Your task to perform on an android device: manage bookmarks in the chrome app Image 0: 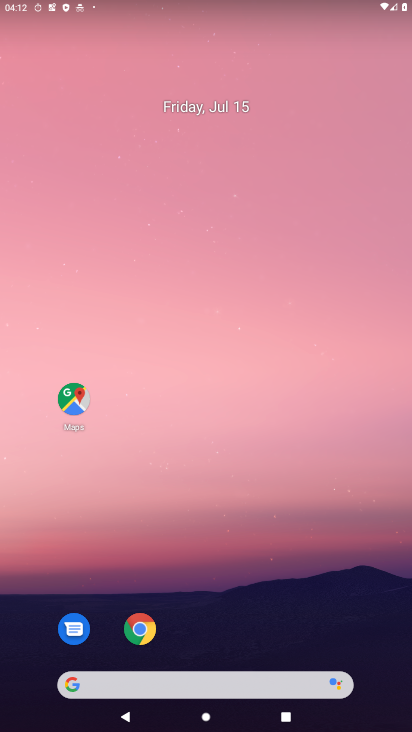
Step 0: drag from (216, 618) to (233, 263)
Your task to perform on an android device: manage bookmarks in the chrome app Image 1: 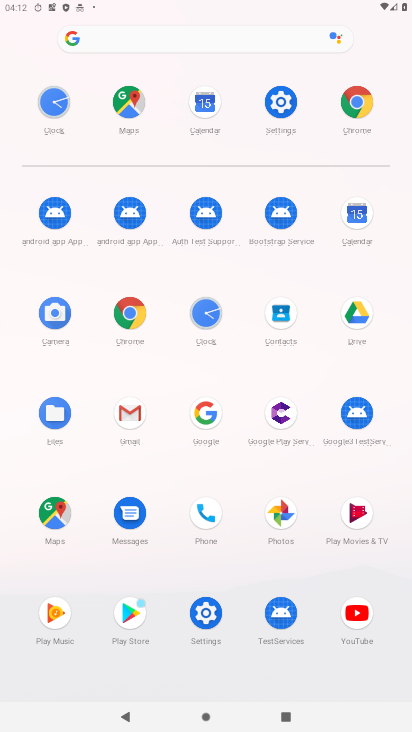
Step 1: click (367, 99)
Your task to perform on an android device: manage bookmarks in the chrome app Image 2: 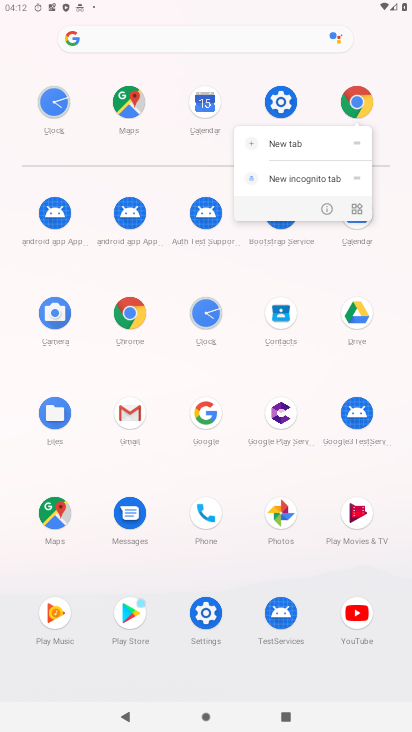
Step 2: click (354, 87)
Your task to perform on an android device: manage bookmarks in the chrome app Image 3: 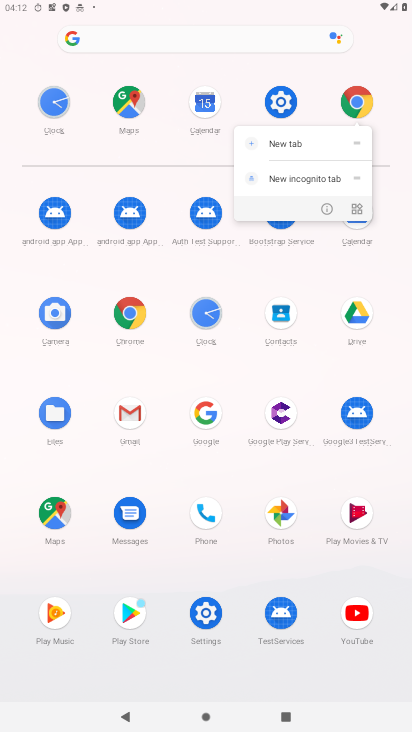
Step 3: click (342, 96)
Your task to perform on an android device: manage bookmarks in the chrome app Image 4: 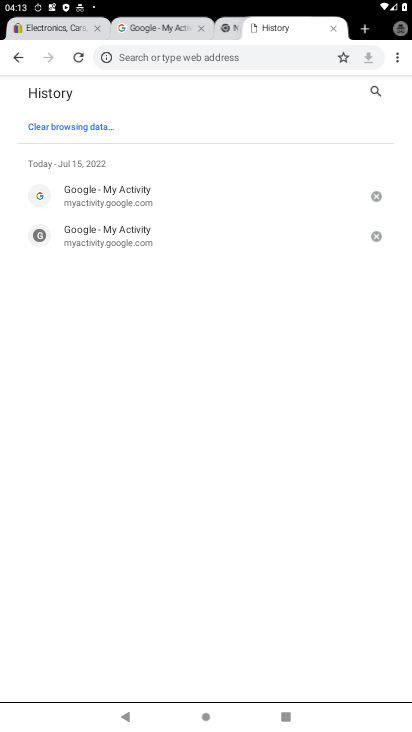
Step 4: drag from (394, 57) to (307, 113)
Your task to perform on an android device: manage bookmarks in the chrome app Image 5: 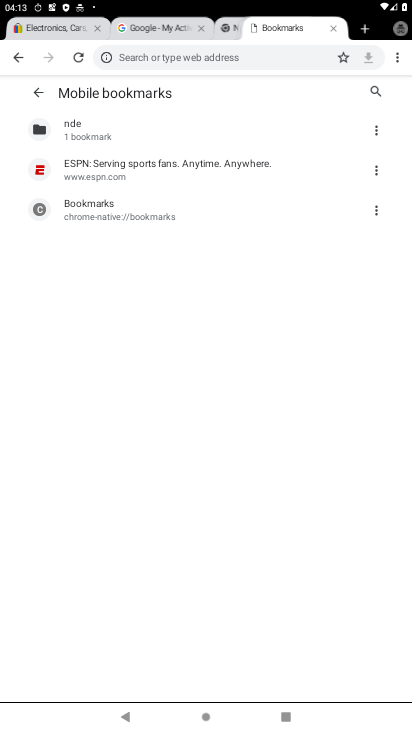
Step 5: click (25, 121)
Your task to perform on an android device: manage bookmarks in the chrome app Image 6: 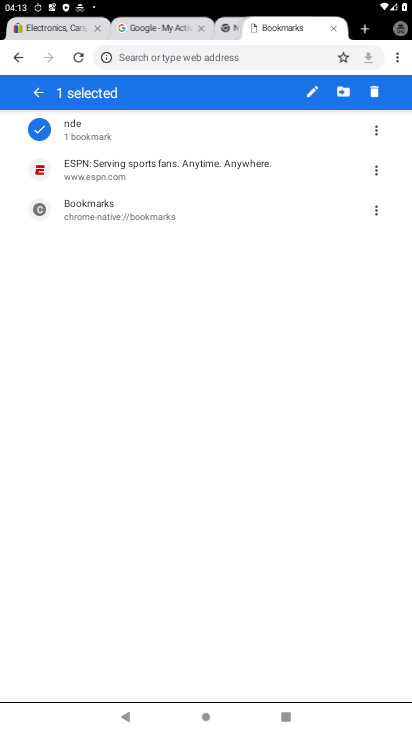
Step 6: click (368, 92)
Your task to perform on an android device: manage bookmarks in the chrome app Image 7: 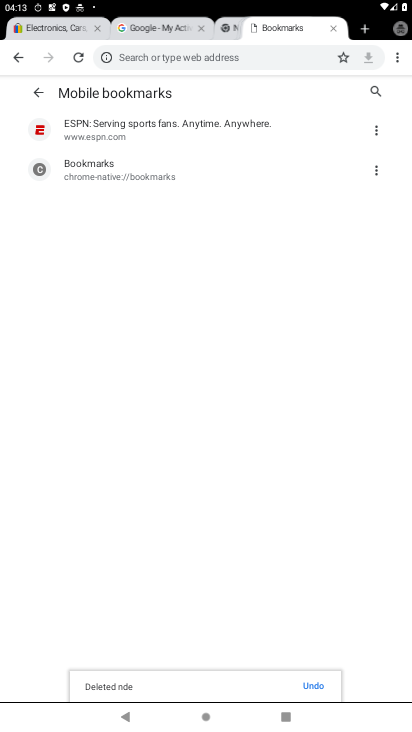
Step 7: task complete